Your task to perform on an android device: change the clock display to digital Image 0: 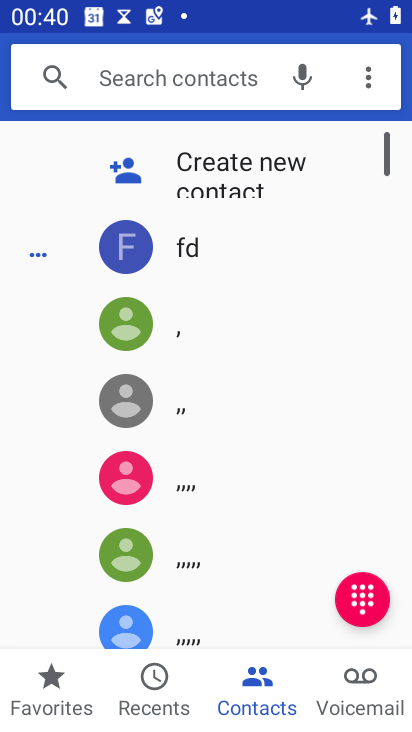
Step 0: press home button
Your task to perform on an android device: change the clock display to digital Image 1: 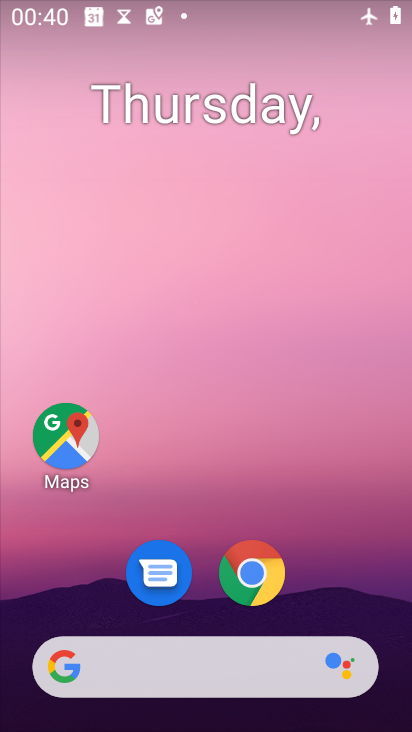
Step 1: drag from (309, 600) to (309, 326)
Your task to perform on an android device: change the clock display to digital Image 2: 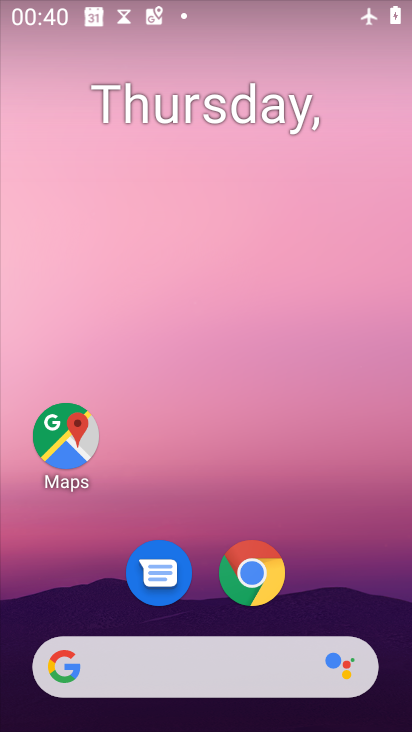
Step 2: drag from (311, 541) to (311, 327)
Your task to perform on an android device: change the clock display to digital Image 3: 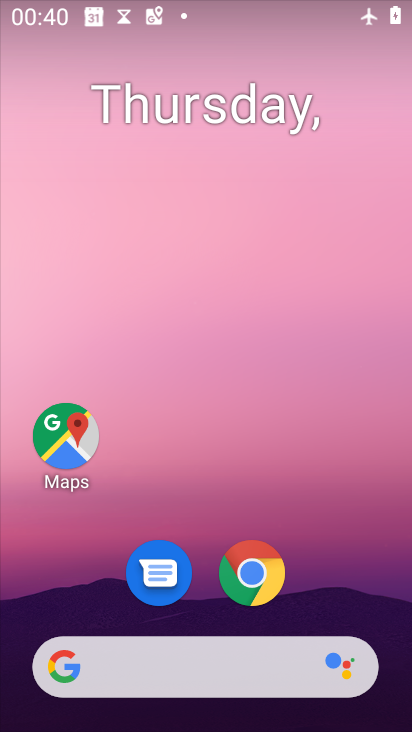
Step 3: drag from (330, 534) to (333, 295)
Your task to perform on an android device: change the clock display to digital Image 4: 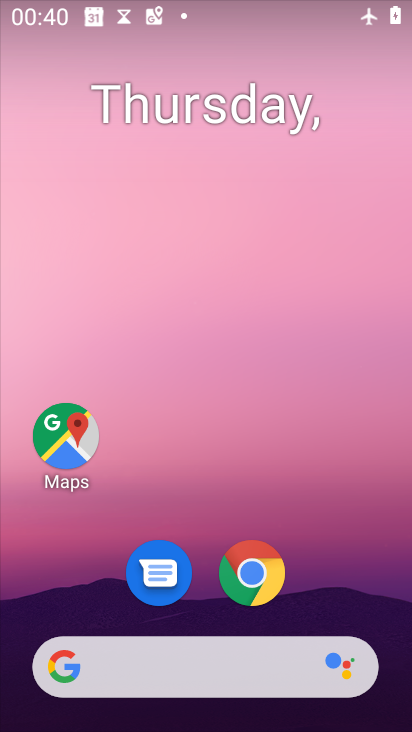
Step 4: drag from (322, 571) to (343, 297)
Your task to perform on an android device: change the clock display to digital Image 5: 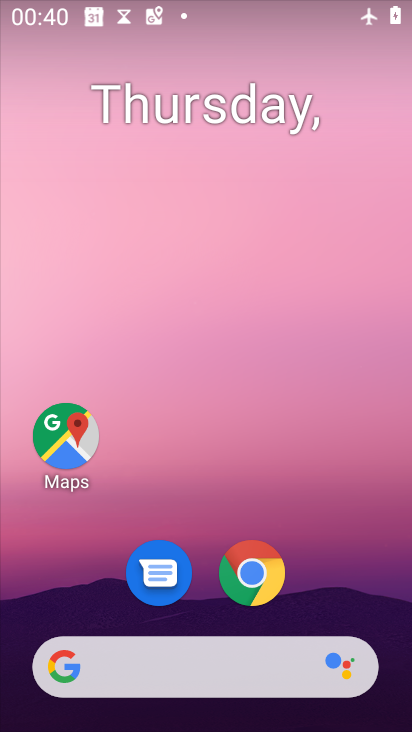
Step 5: drag from (307, 575) to (354, 233)
Your task to perform on an android device: change the clock display to digital Image 6: 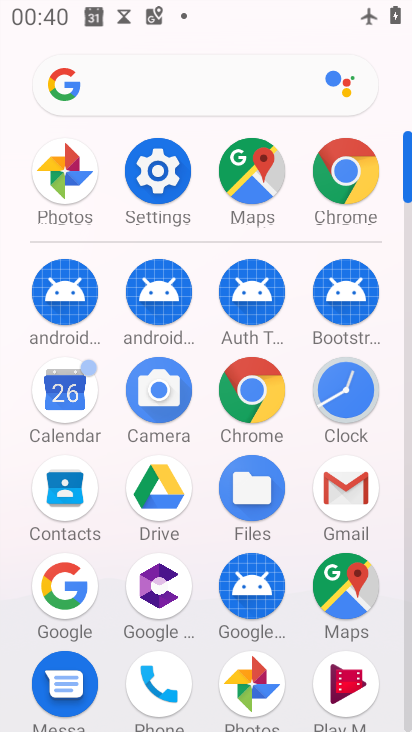
Step 6: click (332, 390)
Your task to perform on an android device: change the clock display to digital Image 7: 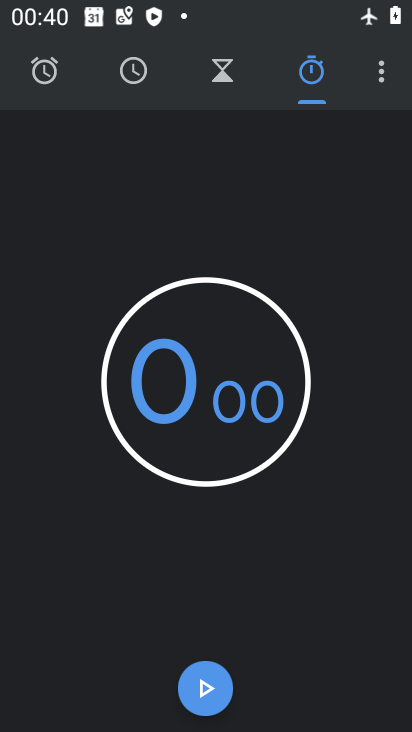
Step 7: click (369, 64)
Your task to perform on an android device: change the clock display to digital Image 8: 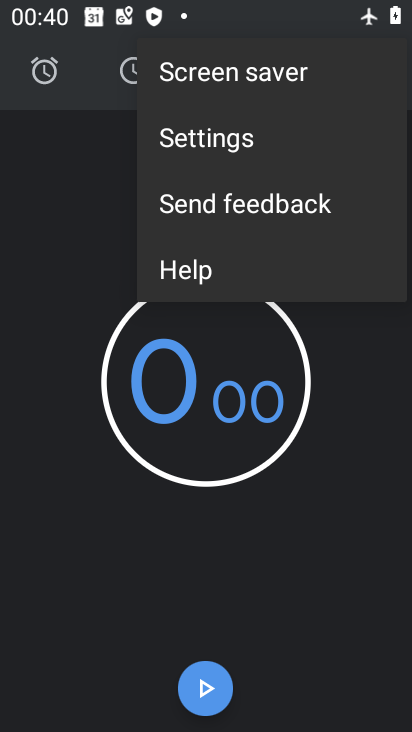
Step 8: click (200, 140)
Your task to perform on an android device: change the clock display to digital Image 9: 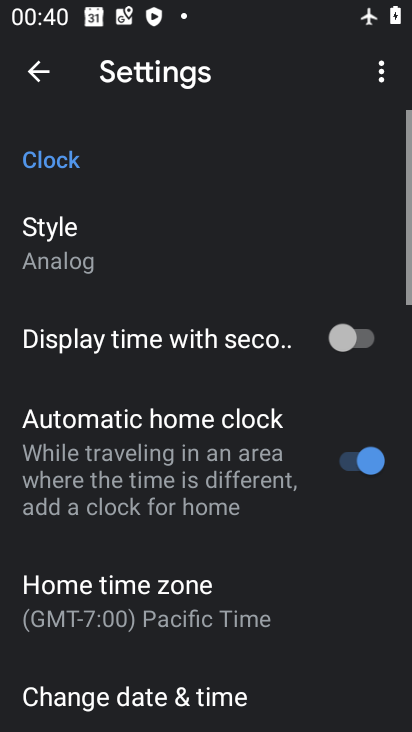
Step 9: click (94, 230)
Your task to perform on an android device: change the clock display to digital Image 10: 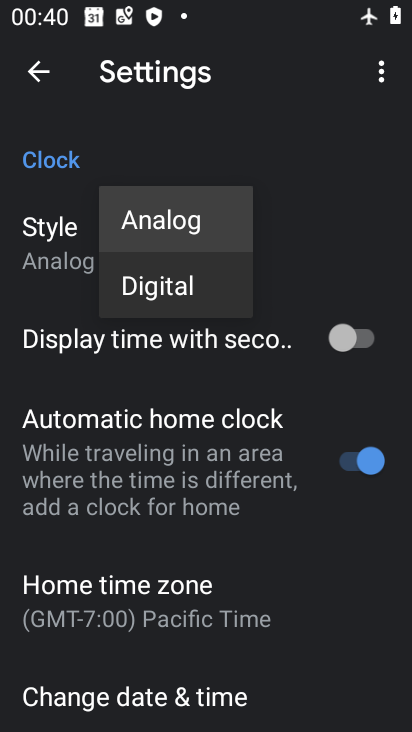
Step 10: click (156, 287)
Your task to perform on an android device: change the clock display to digital Image 11: 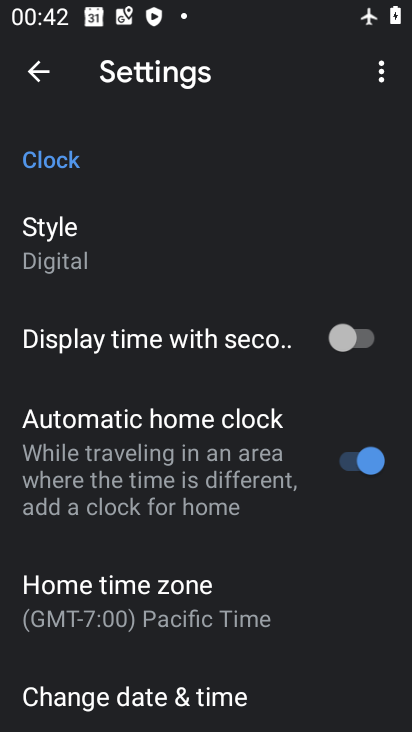
Step 11: task complete